Your task to perform on an android device: What's the weather today? Image 0: 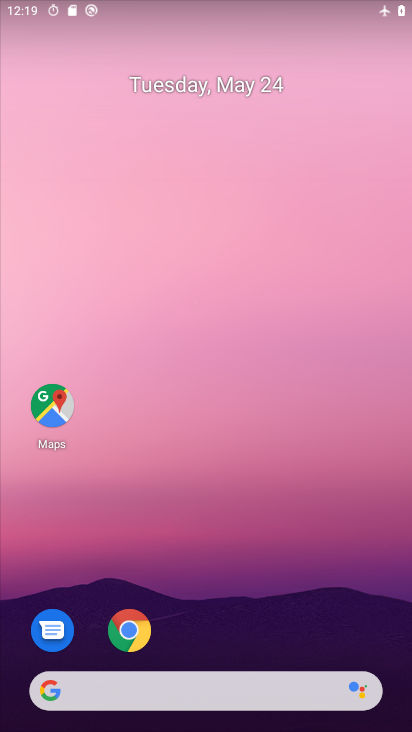
Step 0: drag from (238, 660) to (295, 7)
Your task to perform on an android device: What's the weather today? Image 1: 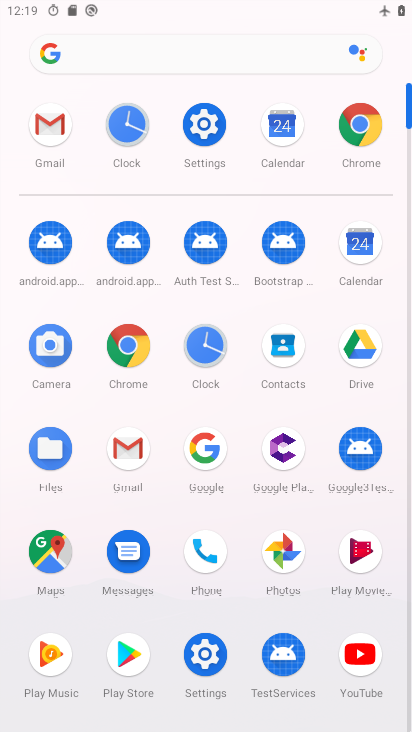
Step 1: drag from (180, 547) to (182, 336)
Your task to perform on an android device: What's the weather today? Image 2: 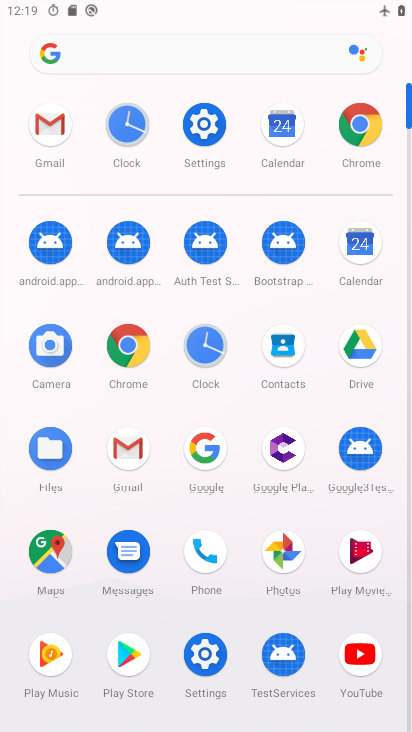
Step 2: click (199, 41)
Your task to perform on an android device: What's the weather today? Image 3: 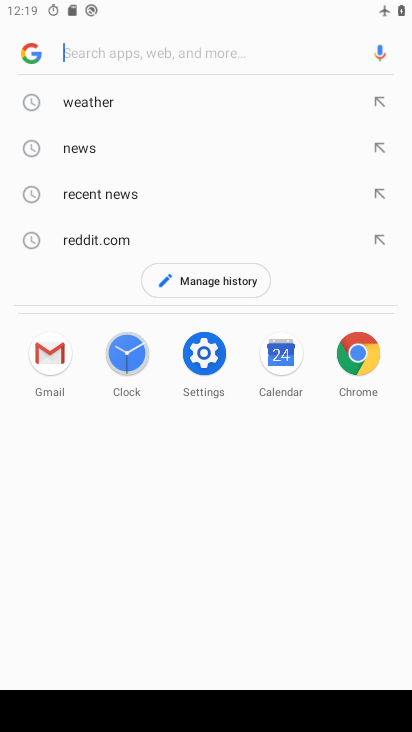
Step 3: click (85, 108)
Your task to perform on an android device: What's the weather today? Image 4: 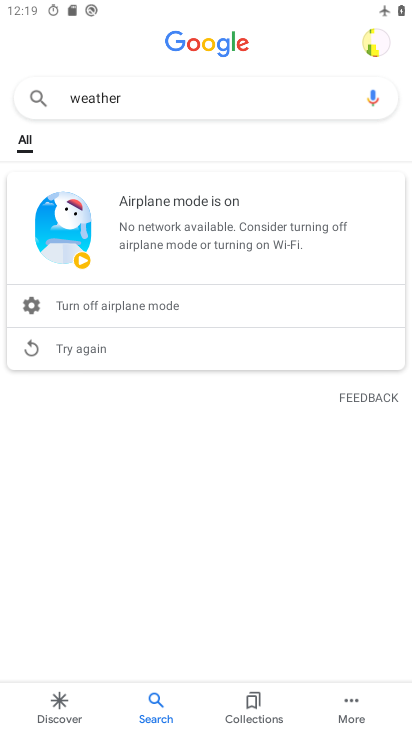
Step 4: task complete